Your task to perform on an android device: turn pop-ups off in chrome Image 0: 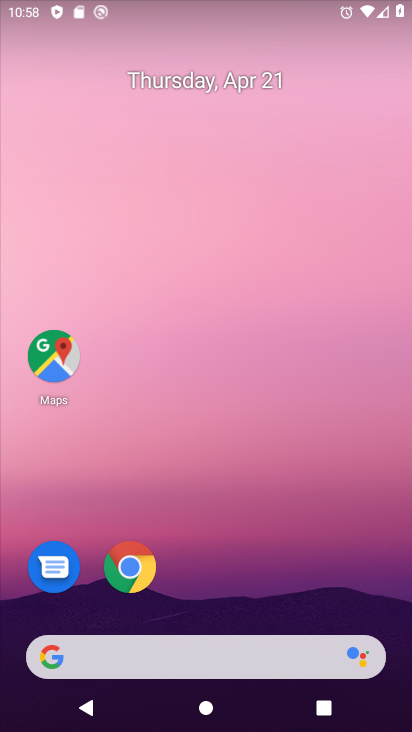
Step 0: click (139, 565)
Your task to perform on an android device: turn pop-ups off in chrome Image 1: 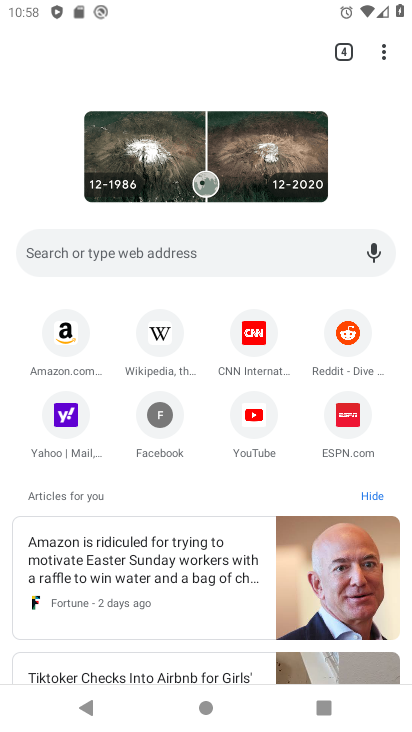
Step 1: click (389, 56)
Your task to perform on an android device: turn pop-ups off in chrome Image 2: 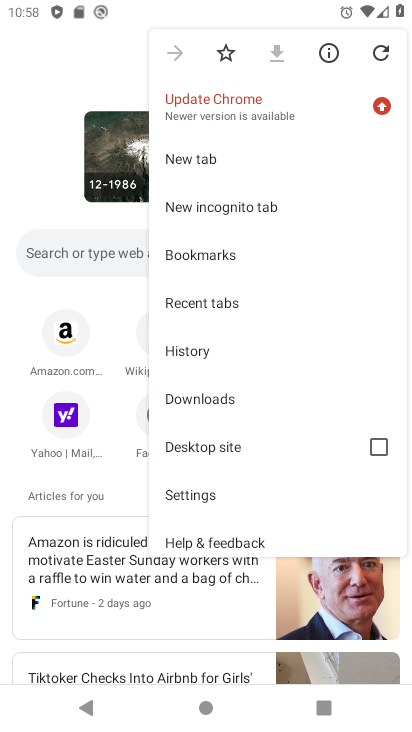
Step 2: click (198, 498)
Your task to perform on an android device: turn pop-ups off in chrome Image 3: 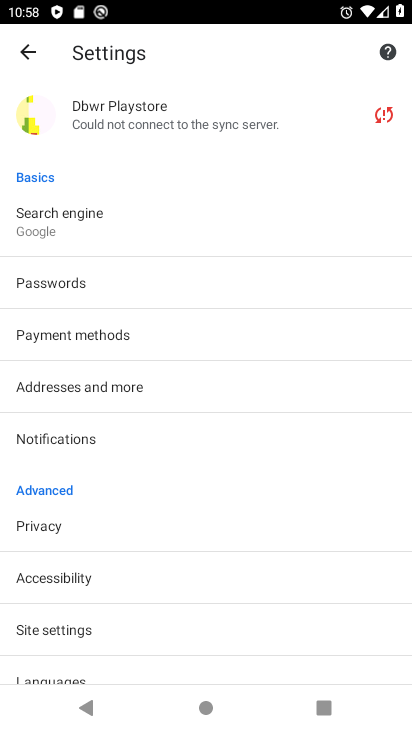
Step 3: drag from (101, 593) to (118, 456)
Your task to perform on an android device: turn pop-ups off in chrome Image 4: 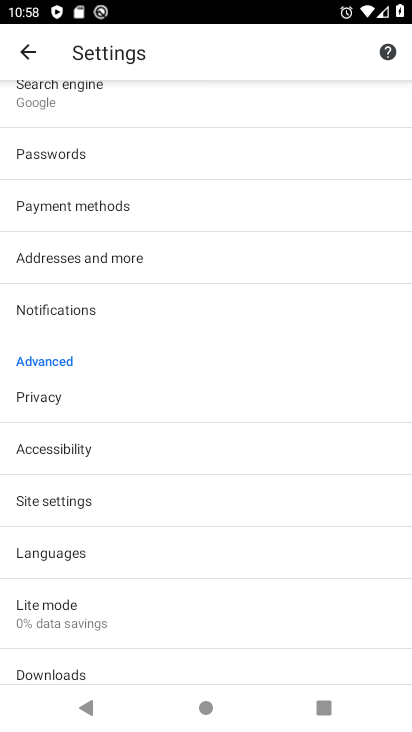
Step 4: click (74, 506)
Your task to perform on an android device: turn pop-ups off in chrome Image 5: 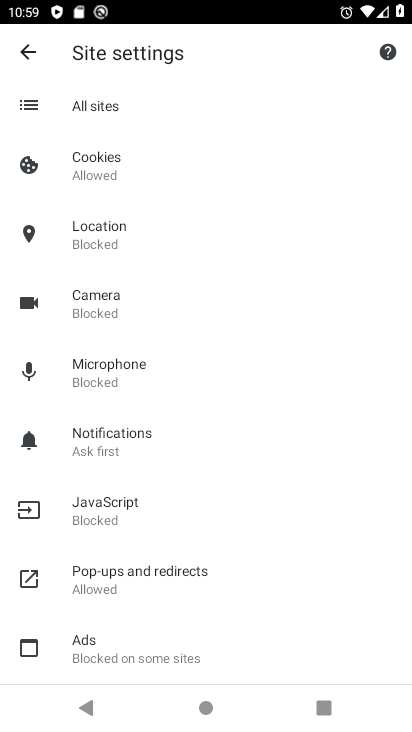
Step 5: click (108, 588)
Your task to perform on an android device: turn pop-ups off in chrome Image 6: 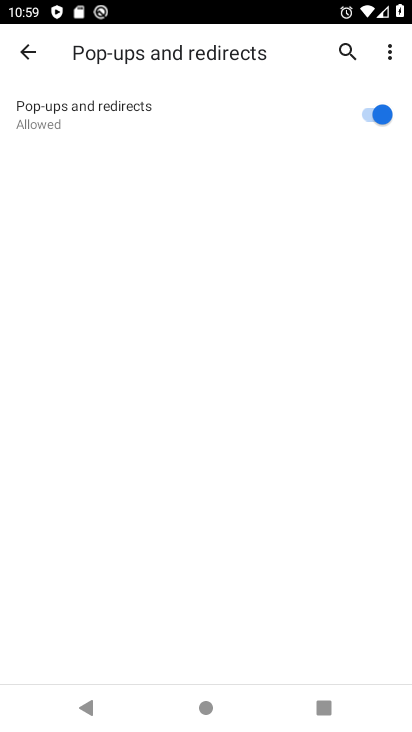
Step 6: click (369, 113)
Your task to perform on an android device: turn pop-ups off in chrome Image 7: 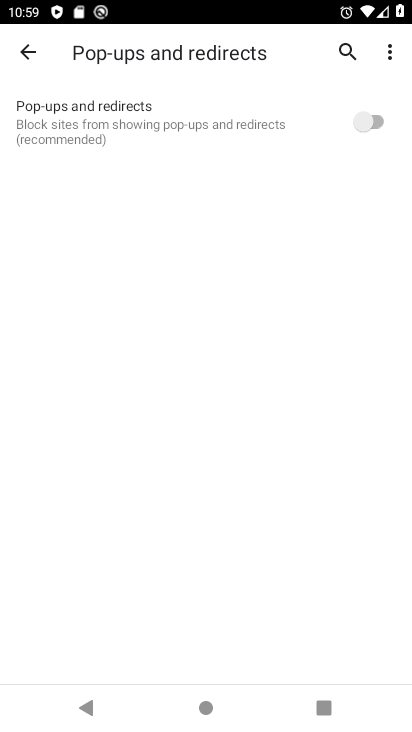
Step 7: task complete